Your task to perform on an android device: set default search engine in the chrome app Image 0: 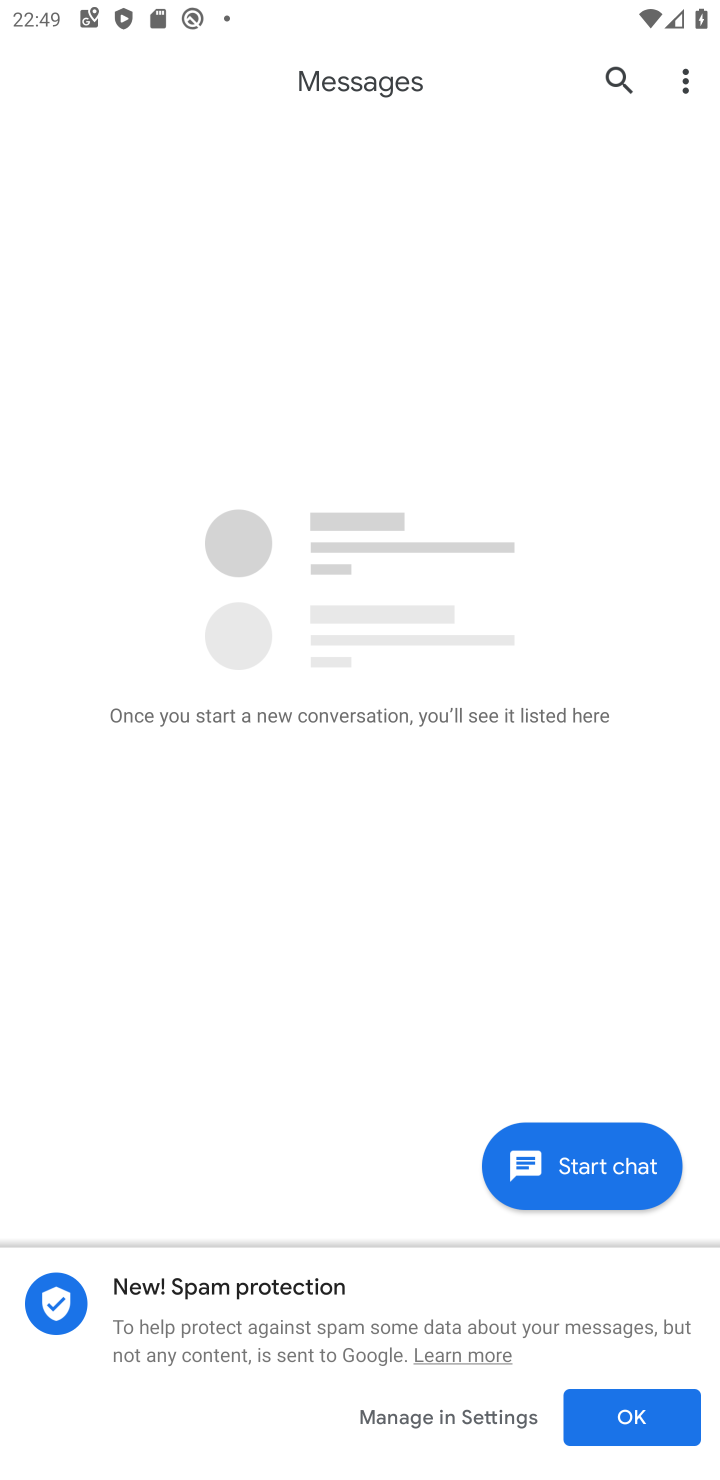
Step 0: press home button
Your task to perform on an android device: set default search engine in the chrome app Image 1: 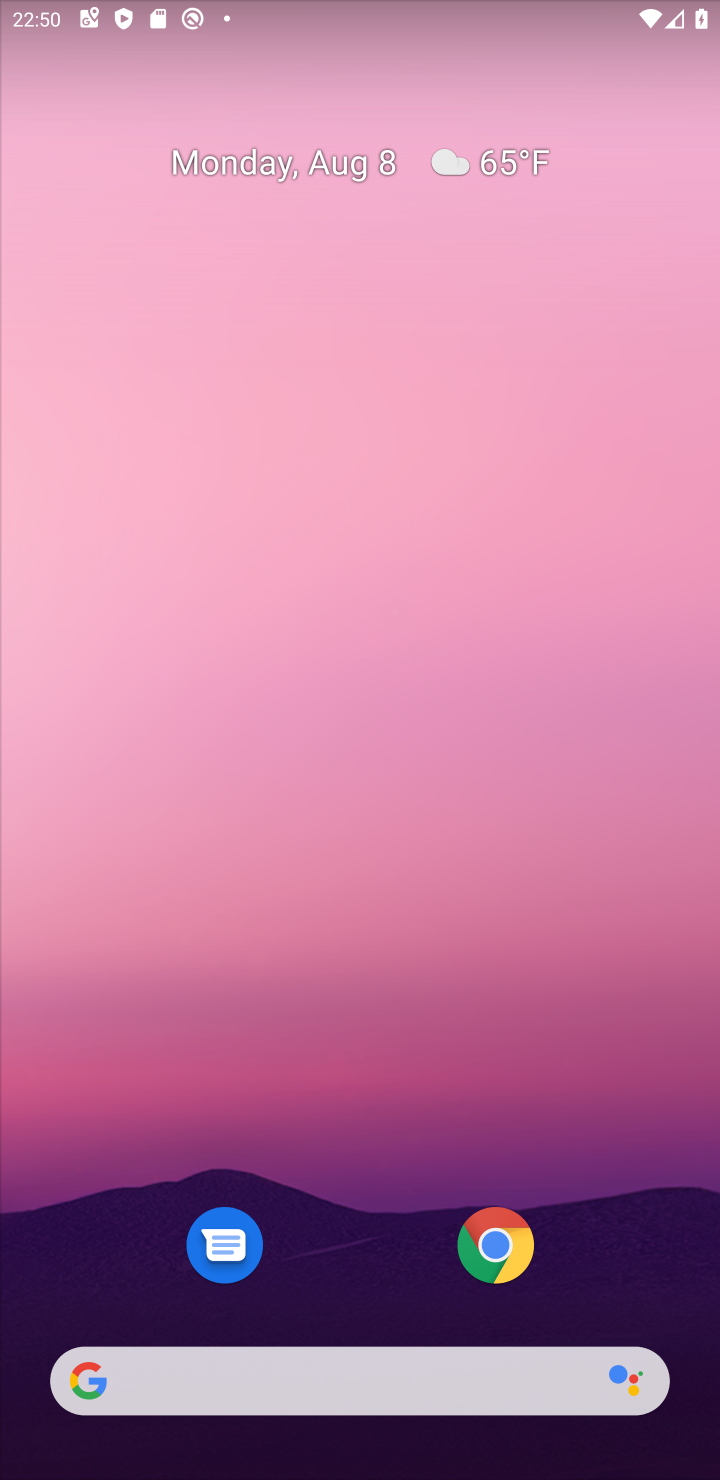
Step 1: click (487, 1250)
Your task to perform on an android device: set default search engine in the chrome app Image 2: 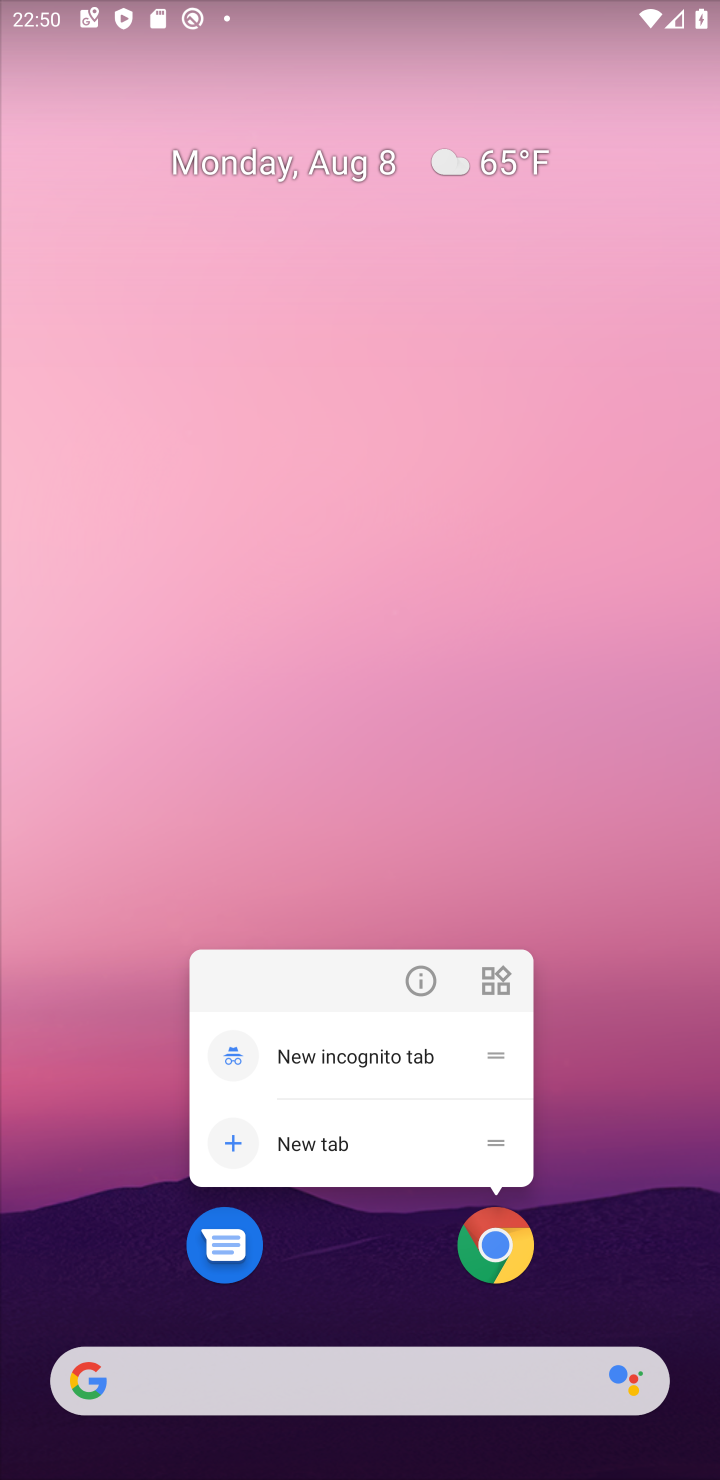
Step 2: click (487, 1250)
Your task to perform on an android device: set default search engine in the chrome app Image 3: 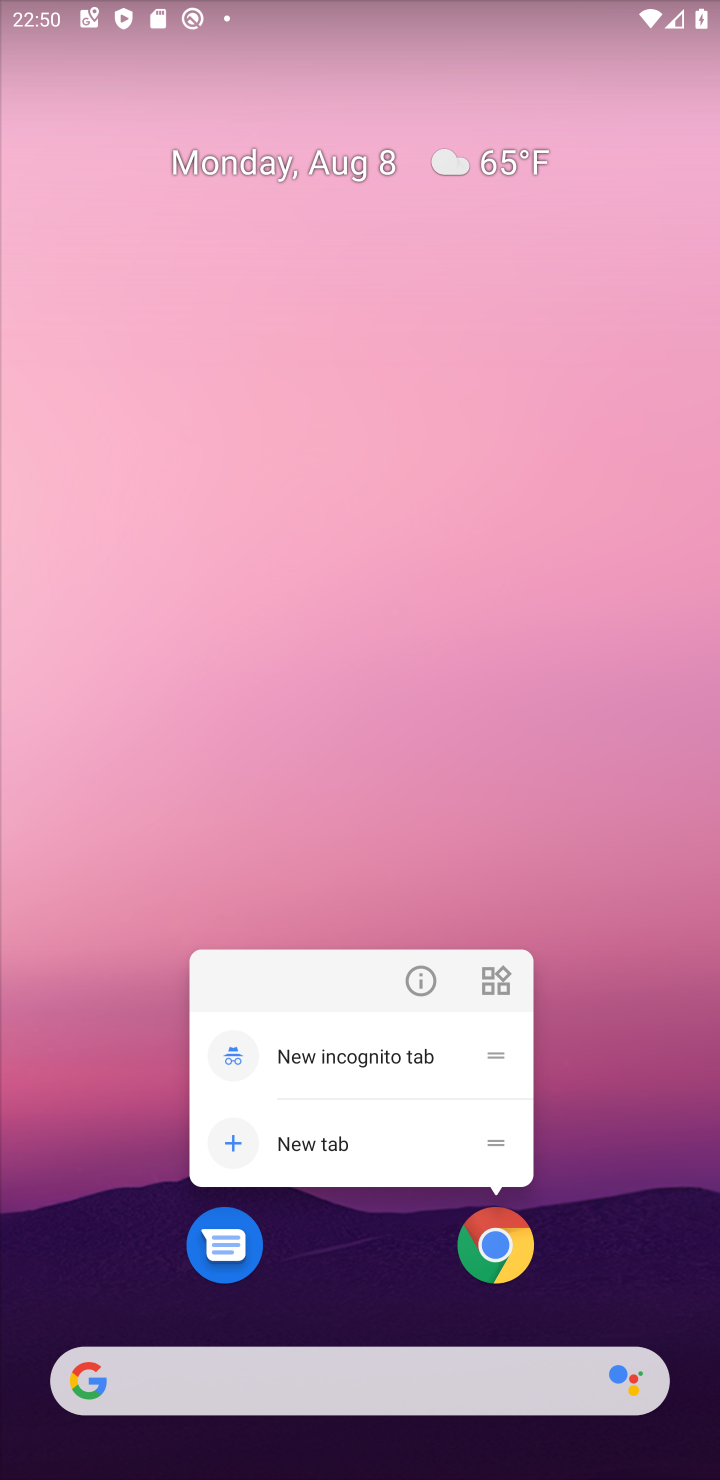
Step 3: click (497, 1245)
Your task to perform on an android device: set default search engine in the chrome app Image 4: 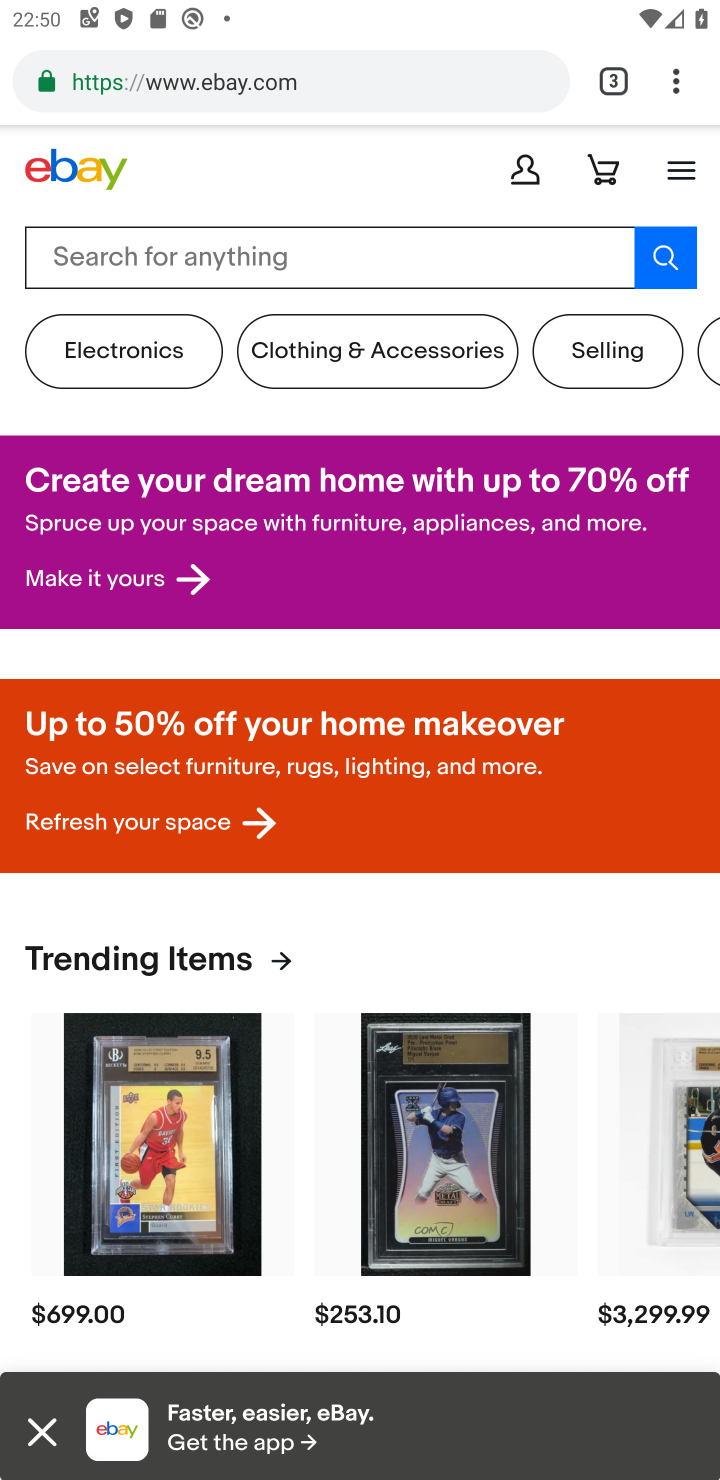
Step 4: click (669, 82)
Your task to perform on an android device: set default search engine in the chrome app Image 5: 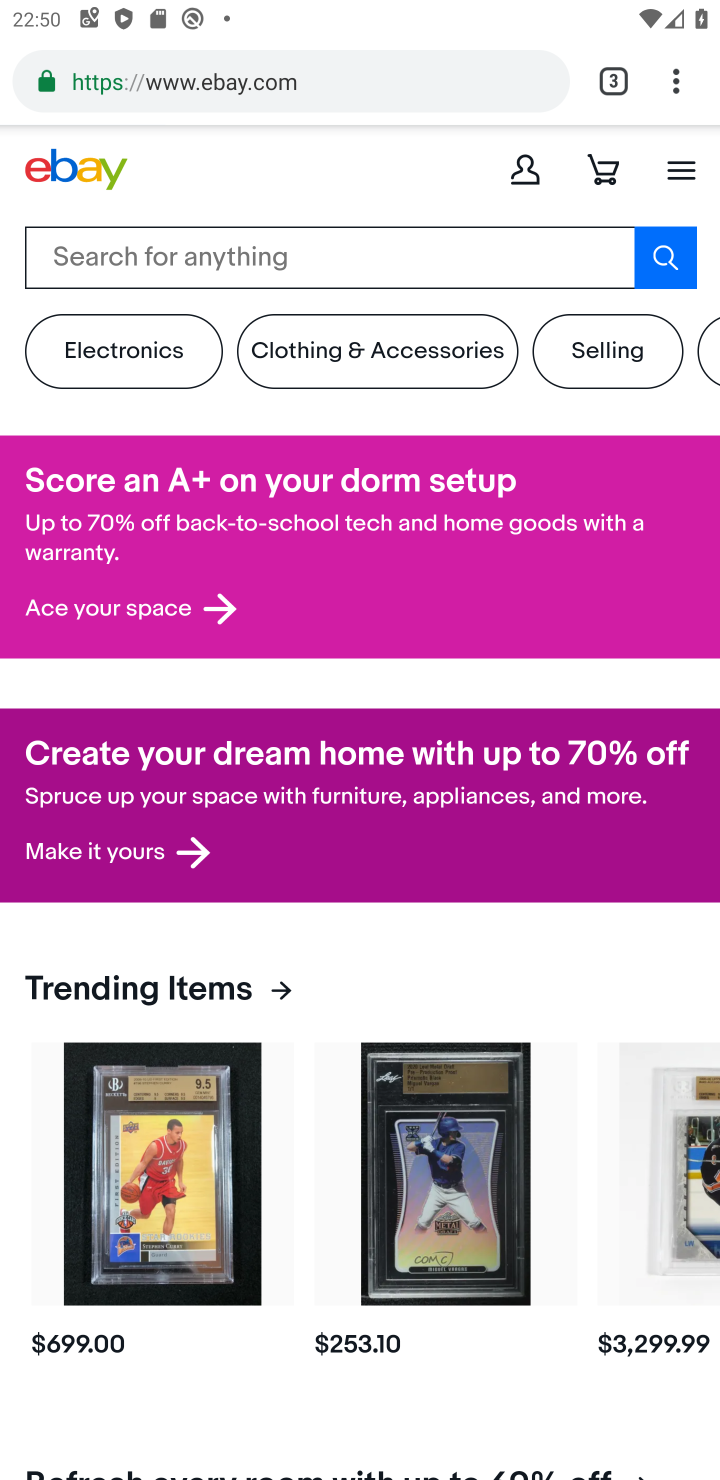
Step 5: click (650, 71)
Your task to perform on an android device: set default search engine in the chrome app Image 6: 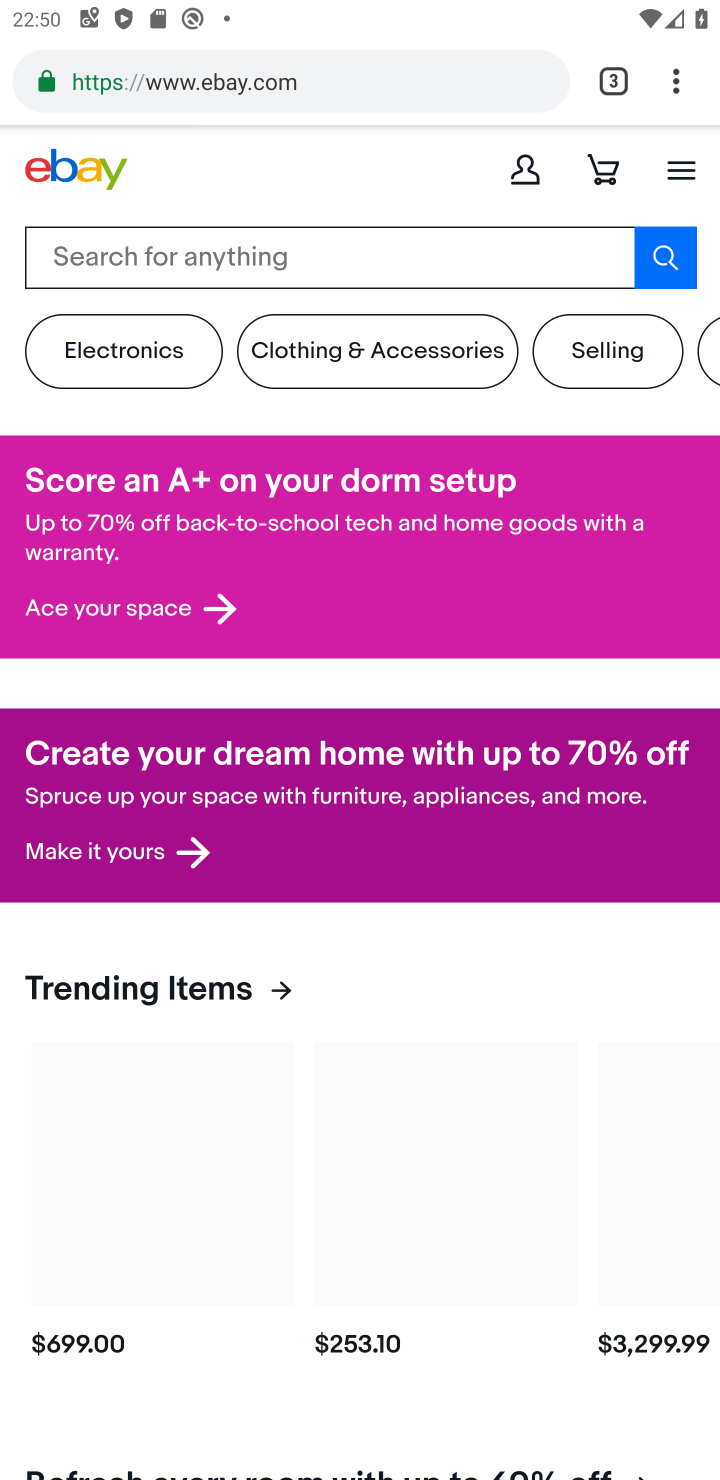
Step 6: click (697, 83)
Your task to perform on an android device: set default search engine in the chrome app Image 7: 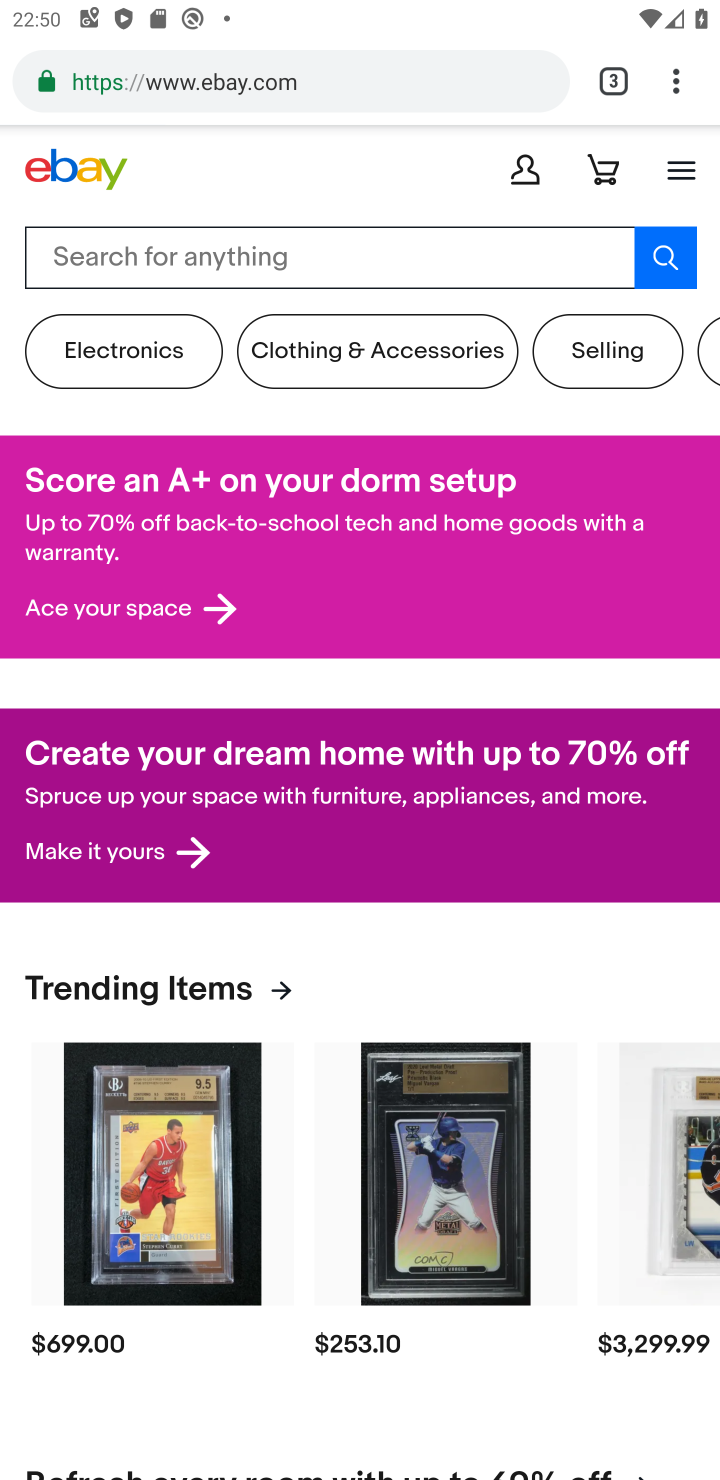
Step 7: click (671, 65)
Your task to perform on an android device: set default search engine in the chrome app Image 8: 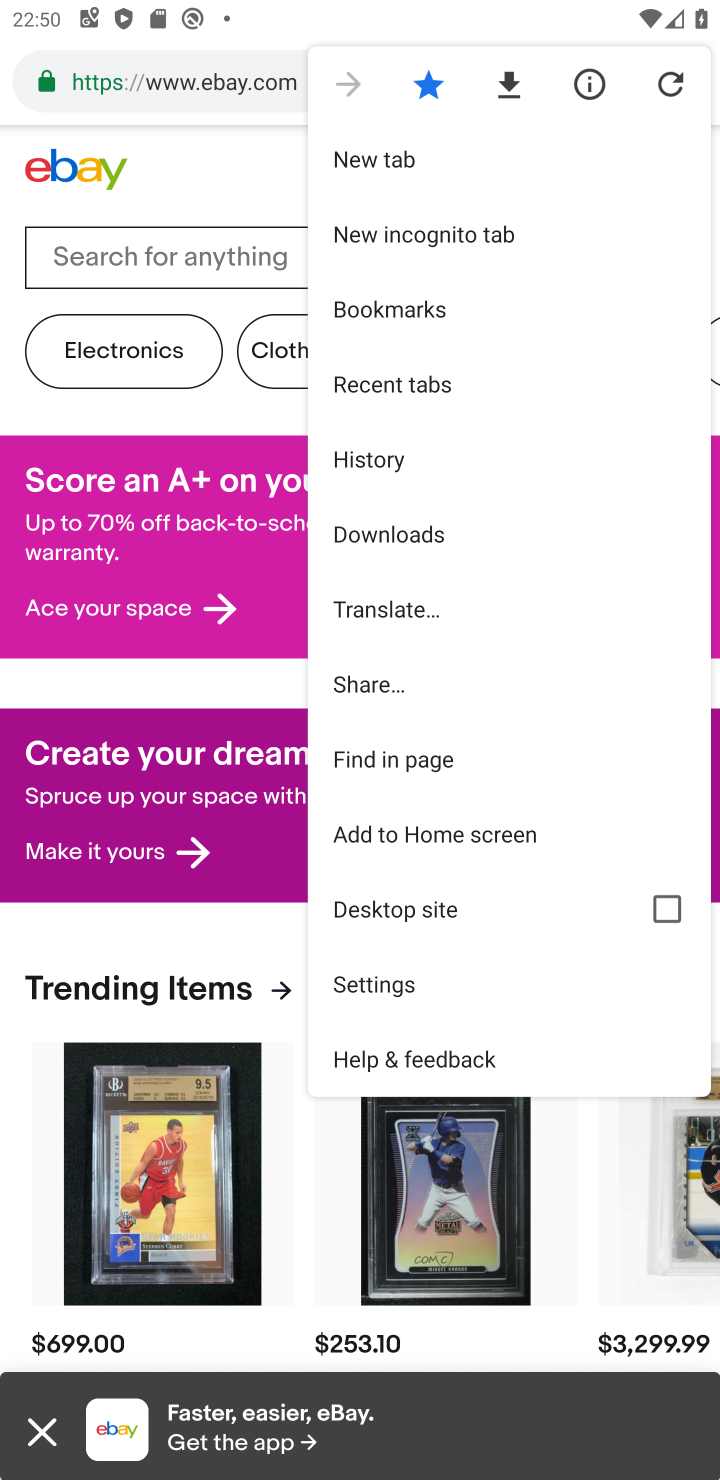
Step 8: click (366, 977)
Your task to perform on an android device: set default search engine in the chrome app Image 9: 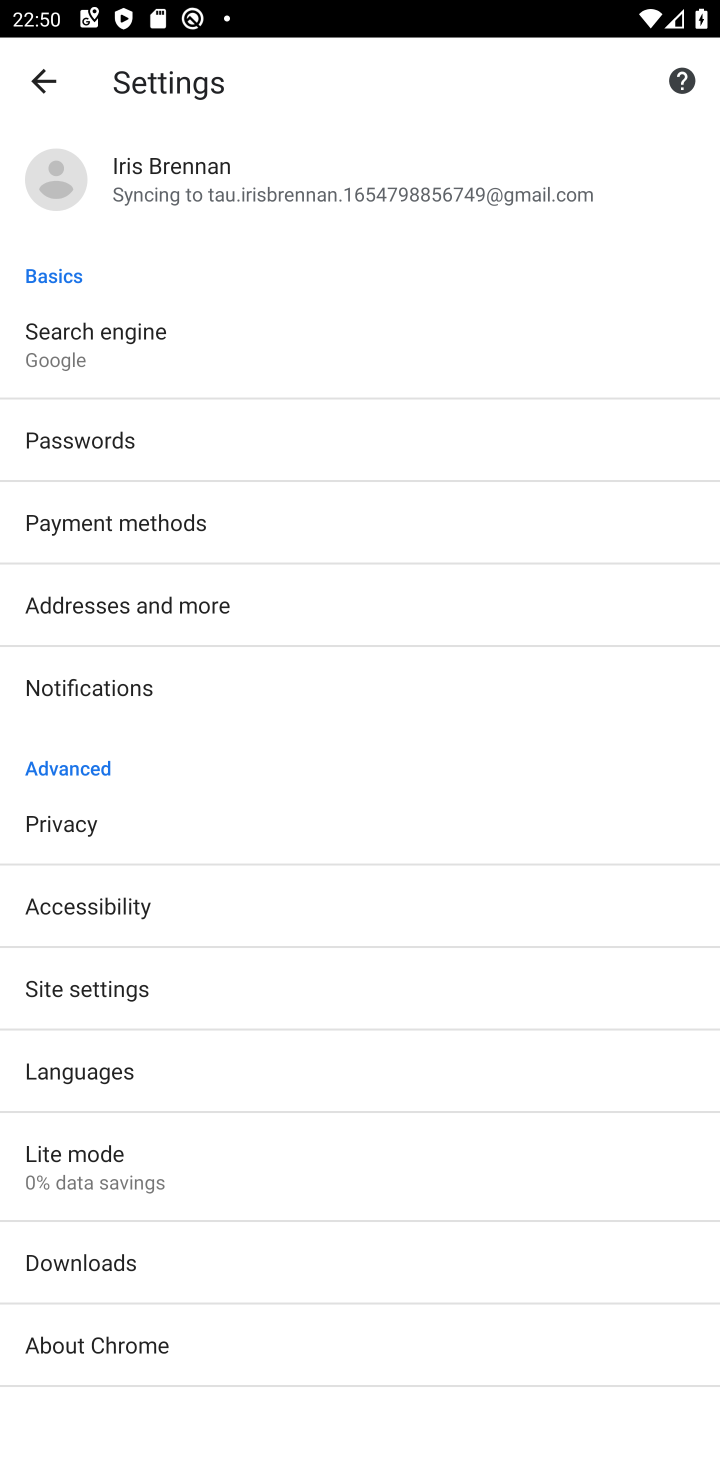
Step 9: click (99, 330)
Your task to perform on an android device: set default search engine in the chrome app Image 10: 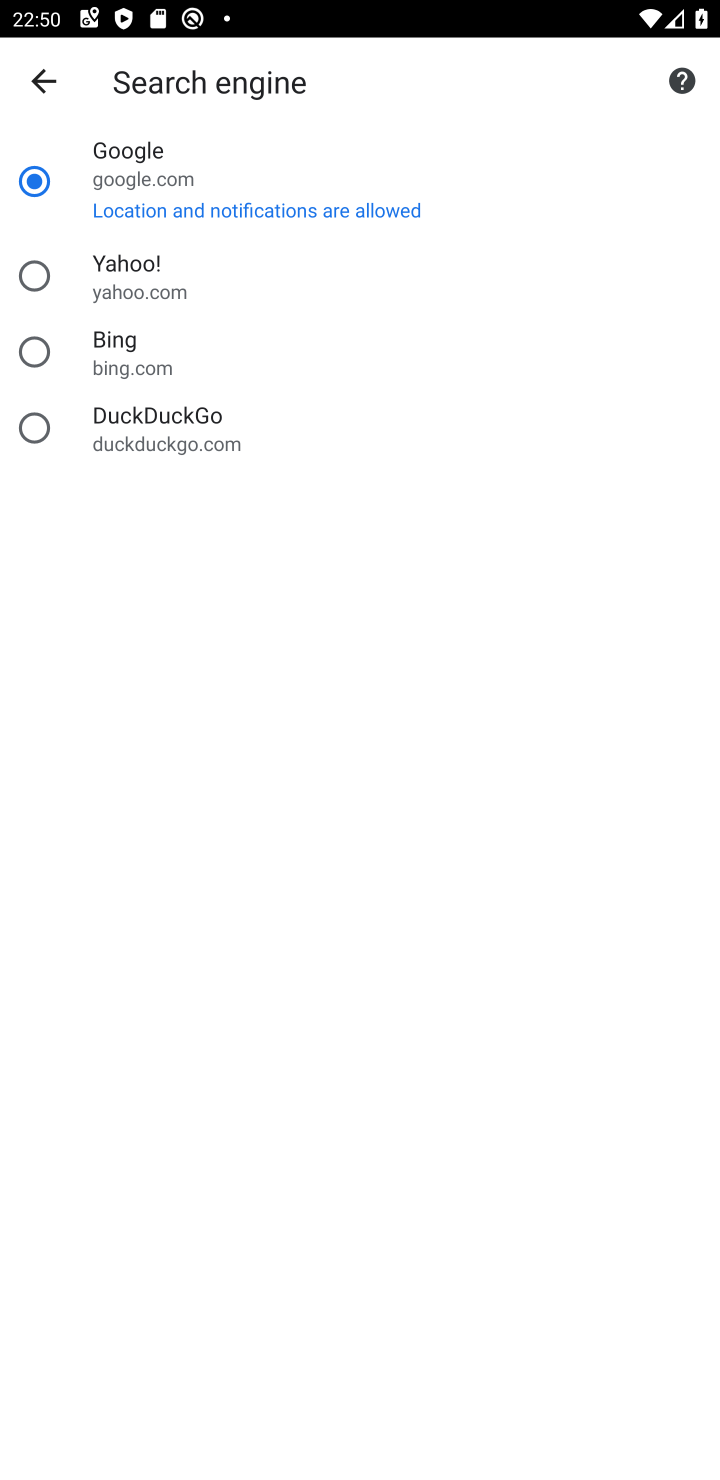
Step 10: task complete